Your task to perform on an android device: Open calendar and show me the fourth week of next month Image 0: 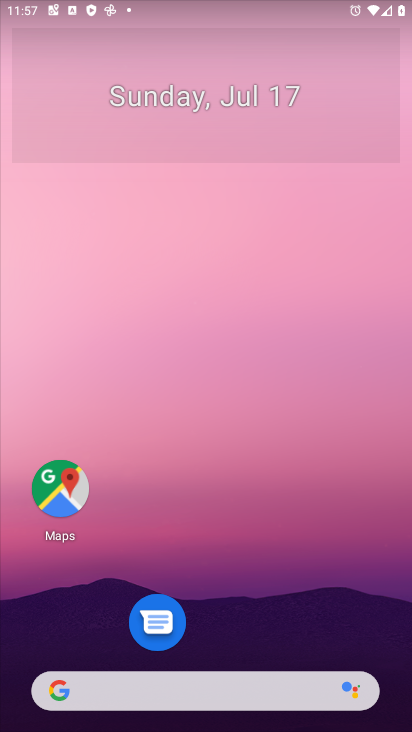
Step 0: drag from (157, 721) to (201, 106)
Your task to perform on an android device: Open calendar and show me the fourth week of next month Image 1: 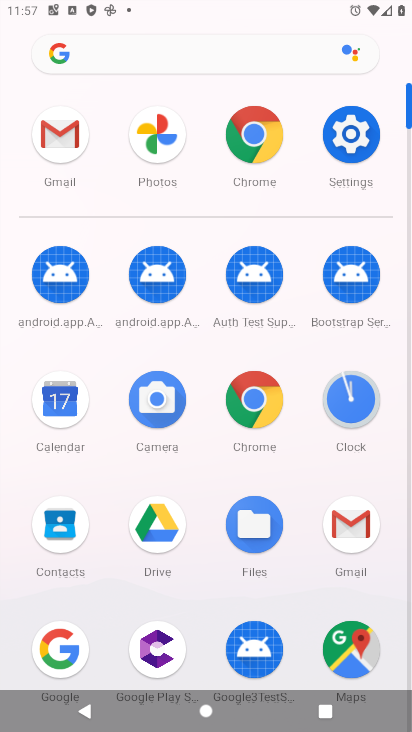
Step 1: click (64, 417)
Your task to perform on an android device: Open calendar and show me the fourth week of next month Image 2: 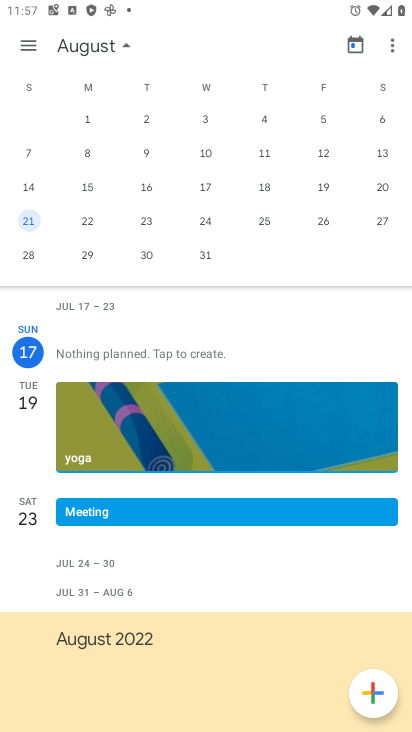
Step 2: click (23, 215)
Your task to perform on an android device: Open calendar and show me the fourth week of next month Image 3: 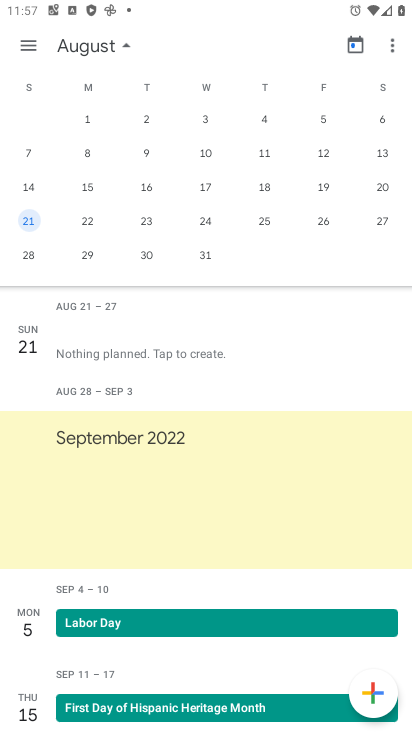
Step 3: task complete